Your task to perform on an android device: Go to Google Image 0: 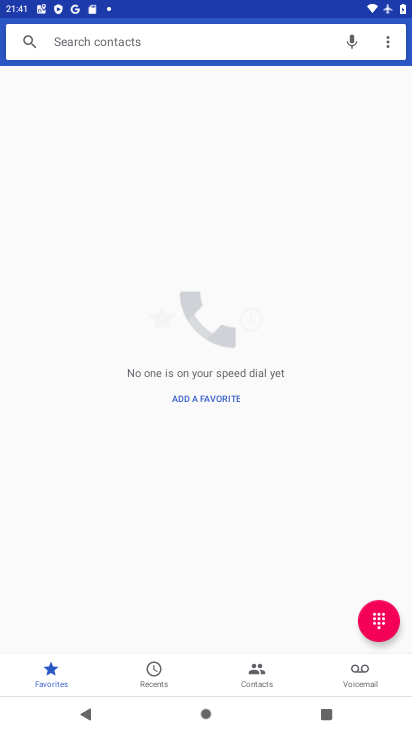
Step 0: press home button
Your task to perform on an android device: Go to Google Image 1: 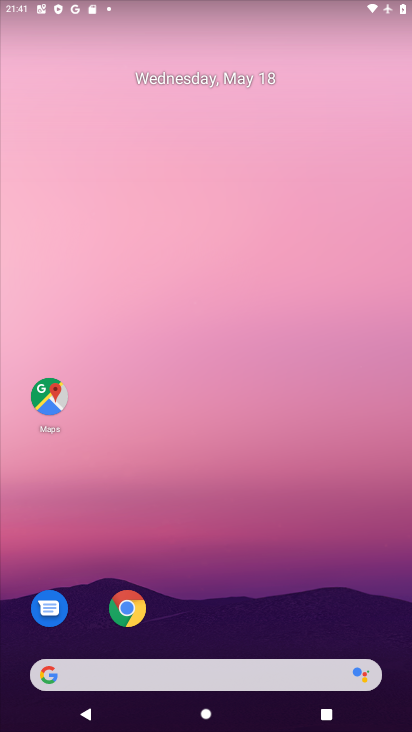
Step 1: click (122, 610)
Your task to perform on an android device: Go to Google Image 2: 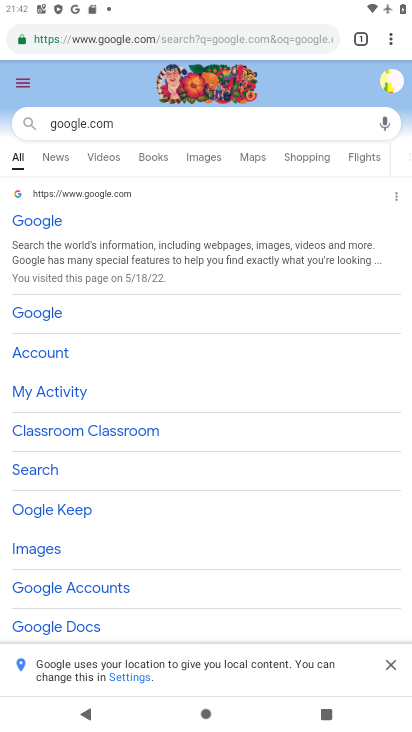
Step 2: click (293, 115)
Your task to perform on an android device: Go to Google Image 3: 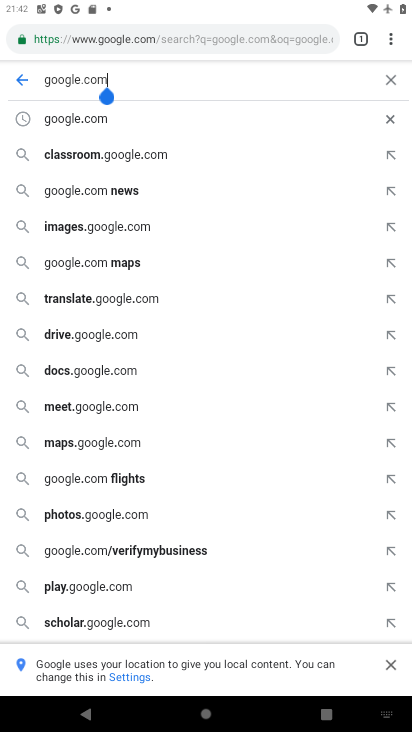
Step 3: click (145, 124)
Your task to perform on an android device: Go to Google Image 4: 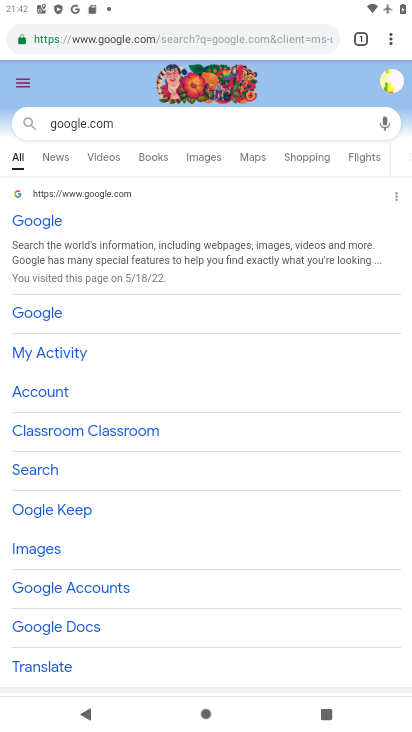
Step 4: task complete